Your task to perform on an android device: set an alarm Image 0: 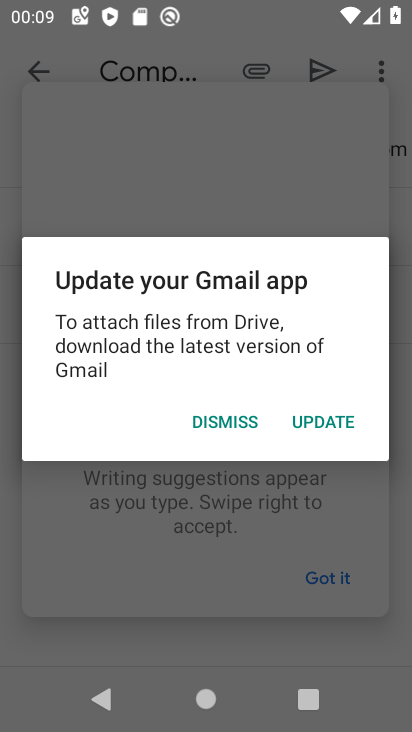
Step 0: press home button
Your task to perform on an android device: set an alarm Image 1: 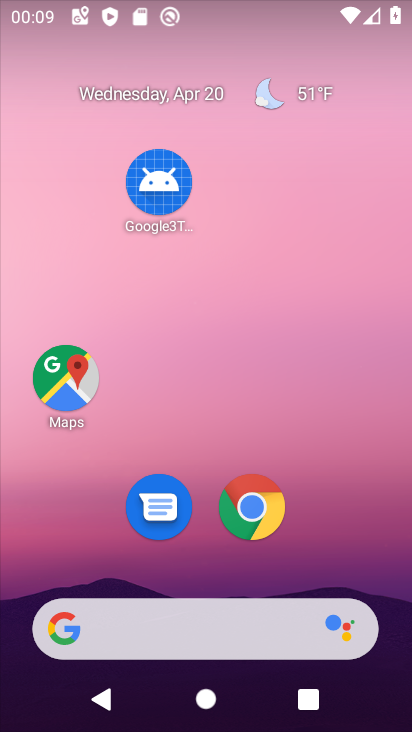
Step 1: drag from (194, 477) to (213, 10)
Your task to perform on an android device: set an alarm Image 2: 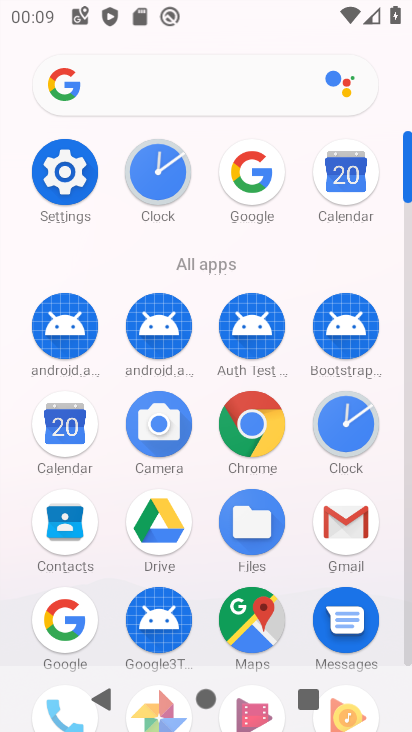
Step 2: click (341, 424)
Your task to perform on an android device: set an alarm Image 3: 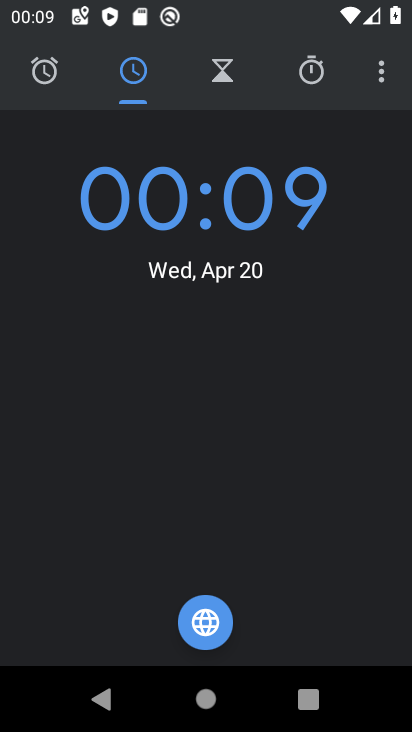
Step 3: click (51, 68)
Your task to perform on an android device: set an alarm Image 4: 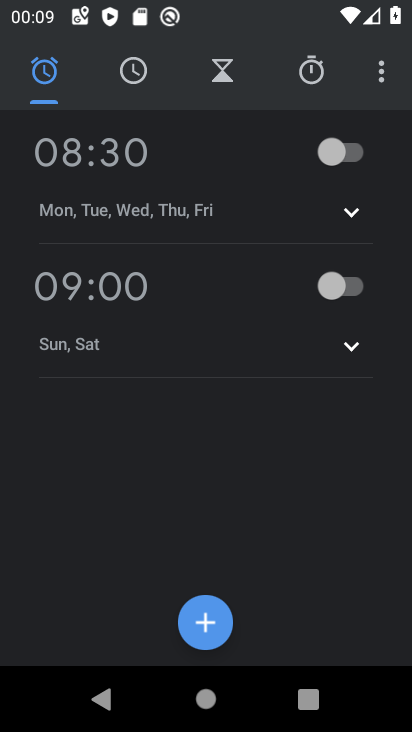
Step 4: click (202, 626)
Your task to perform on an android device: set an alarm Image 5: 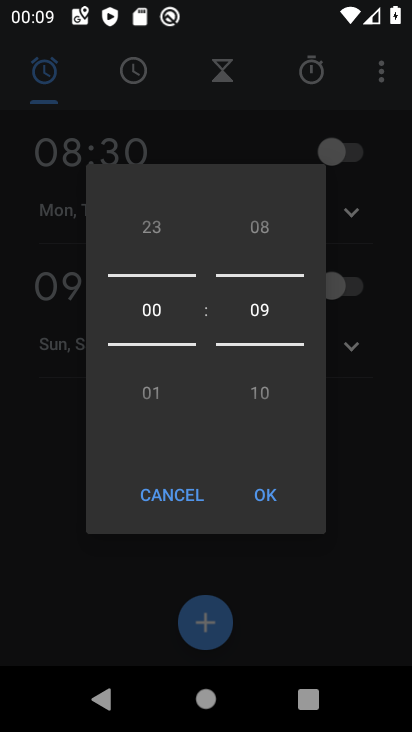
Step 5: click (266, 493)
Your task to perform on an android device: set an alarm Image 6: 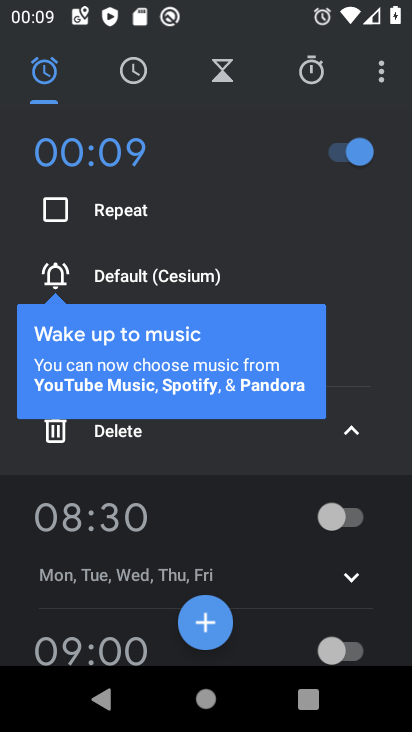
Step 6: task complete